Your task to perform on an android device: Search for "usb-c to usb-a" on target, select the first entry, and add it to the cart. Image 0: 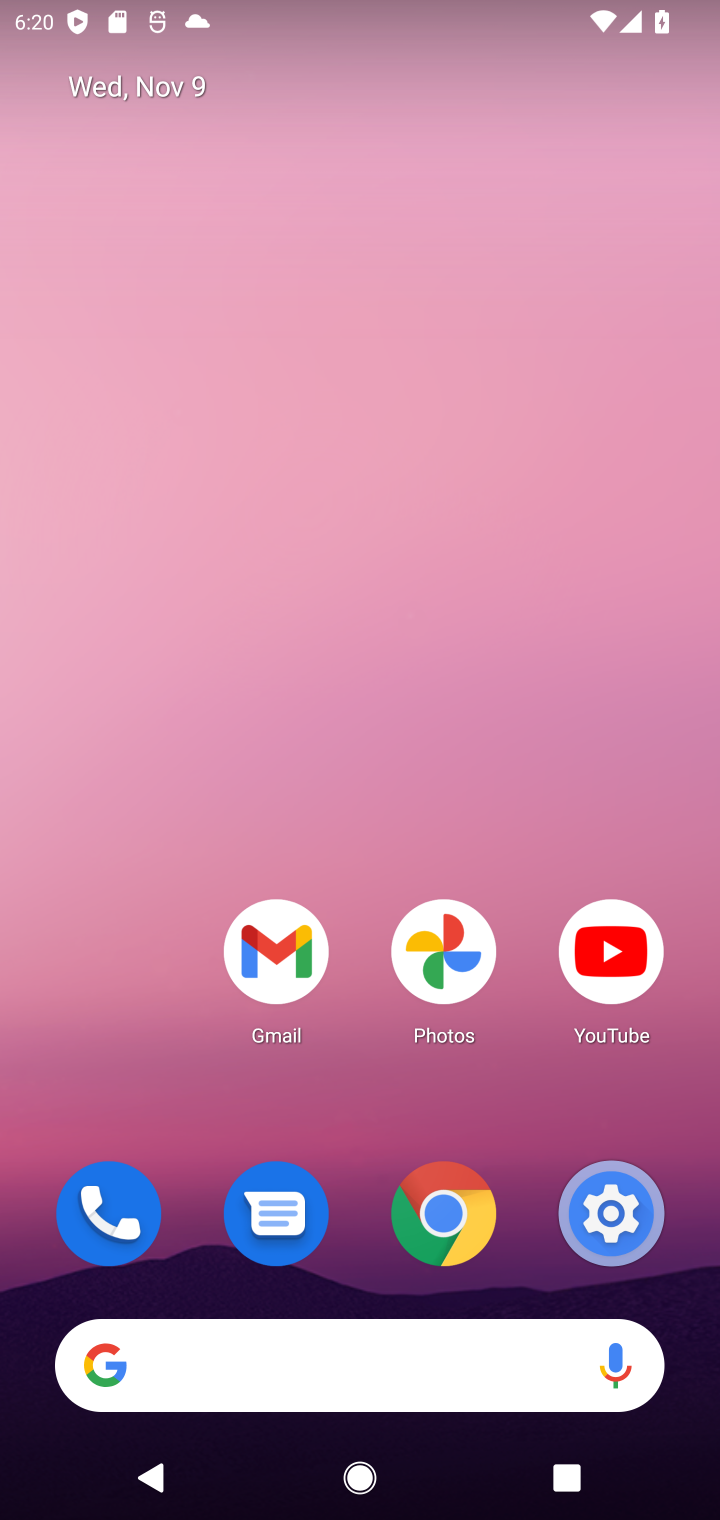
Step 0: click (436, 1198)
Your task to perform on an android device: Search for "usb-c to usb-a" on target, select the first entry, and add it to the cart. Image 1: 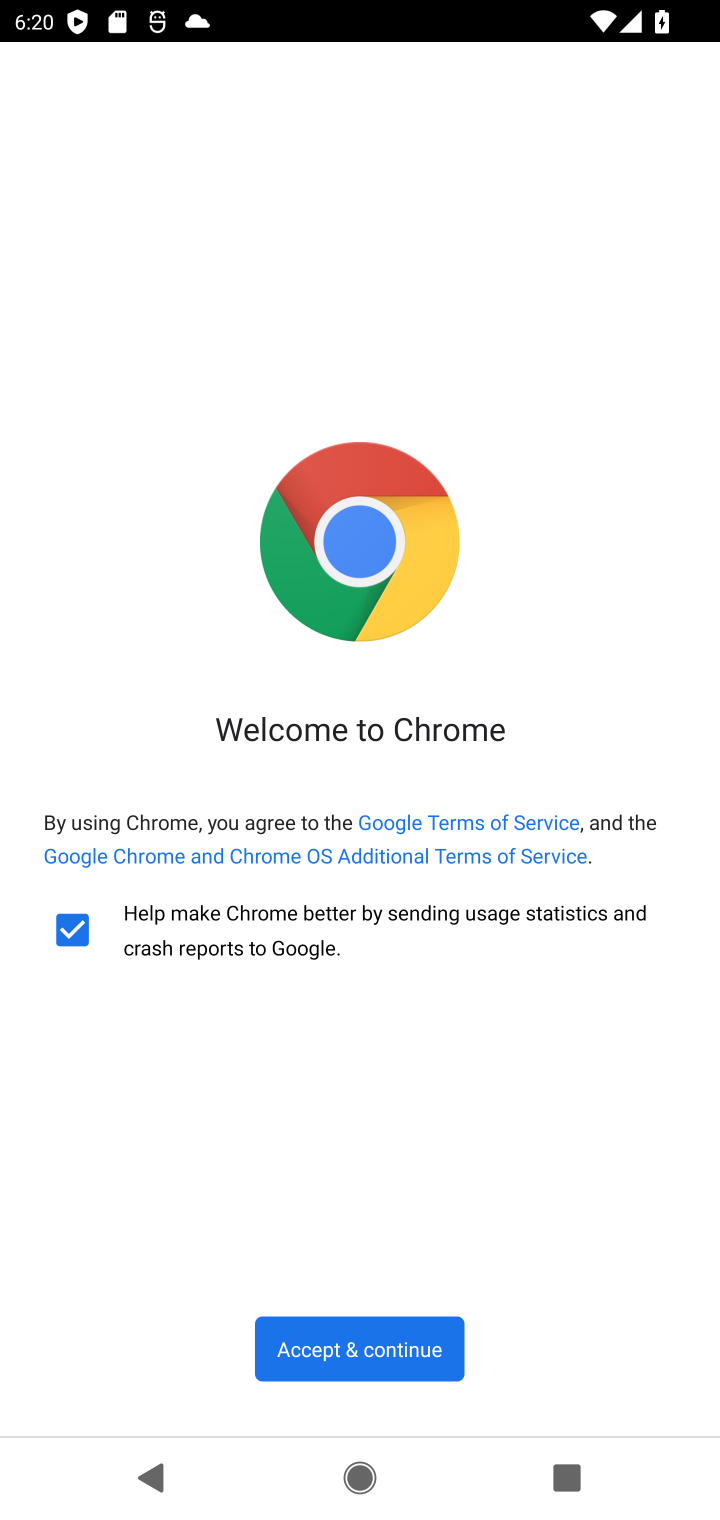
Step 1: click (339, 1351)
Your task to perform on an android device: Search for "usb-c to usb-a" on target, select the first entry, and add it to the cart. Image 2: 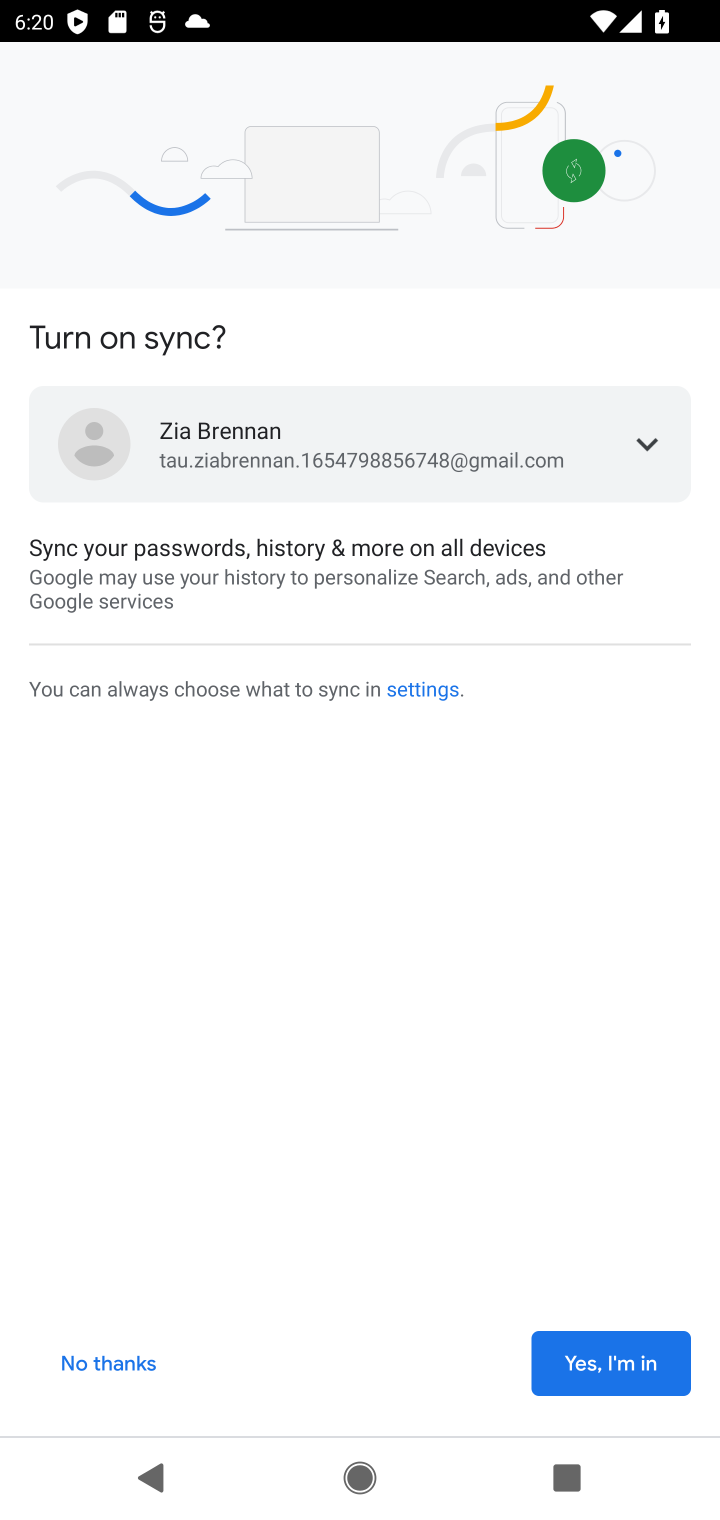
Step 2: click (644, 1365)
Your task to perform on an android device: Search for "usb-c to usb-a" on target, select the first entry, and add it to the cart. Image 3: 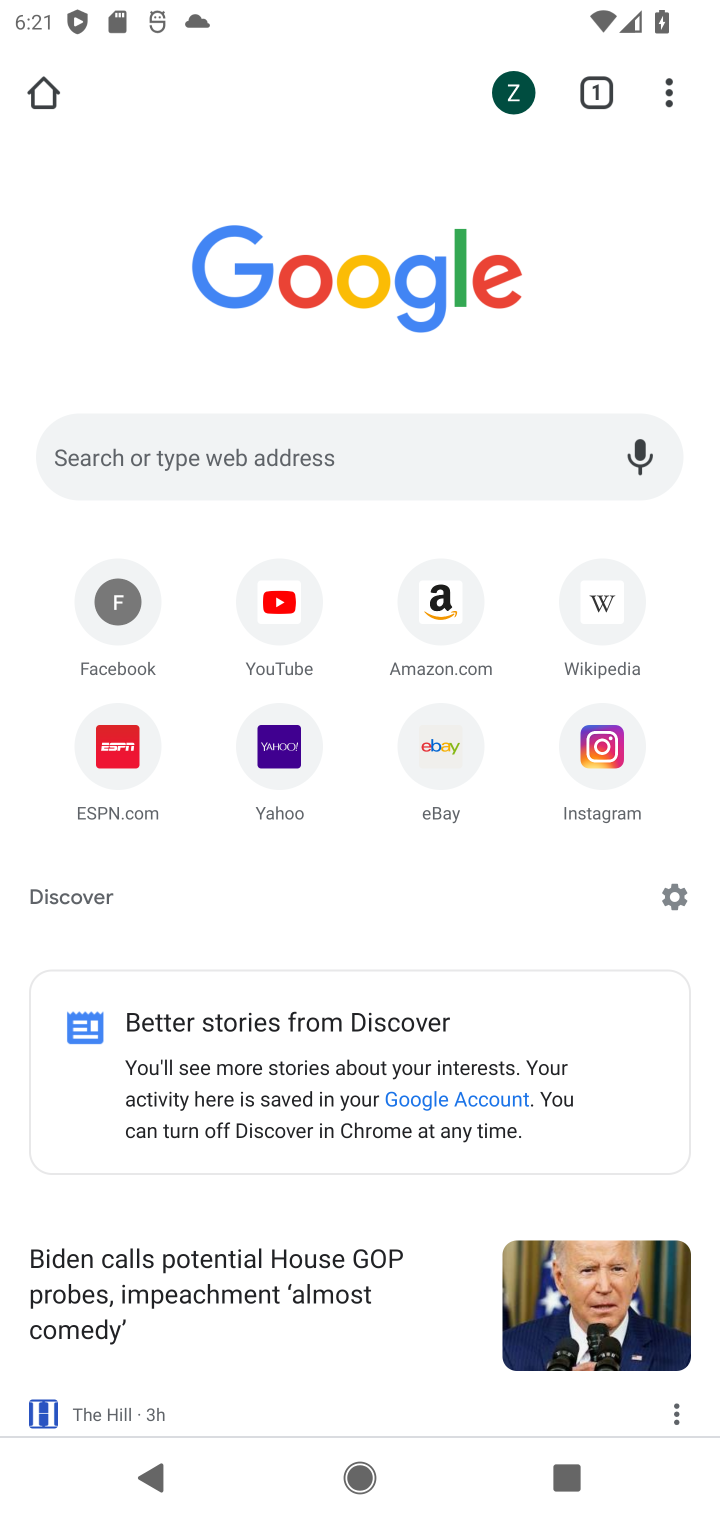
Step 3: click (312, 458)
Your task to perform on an android device: Search for "usb-c to usb-a" on target, select the first entry, and add it to the cart. Image 4: 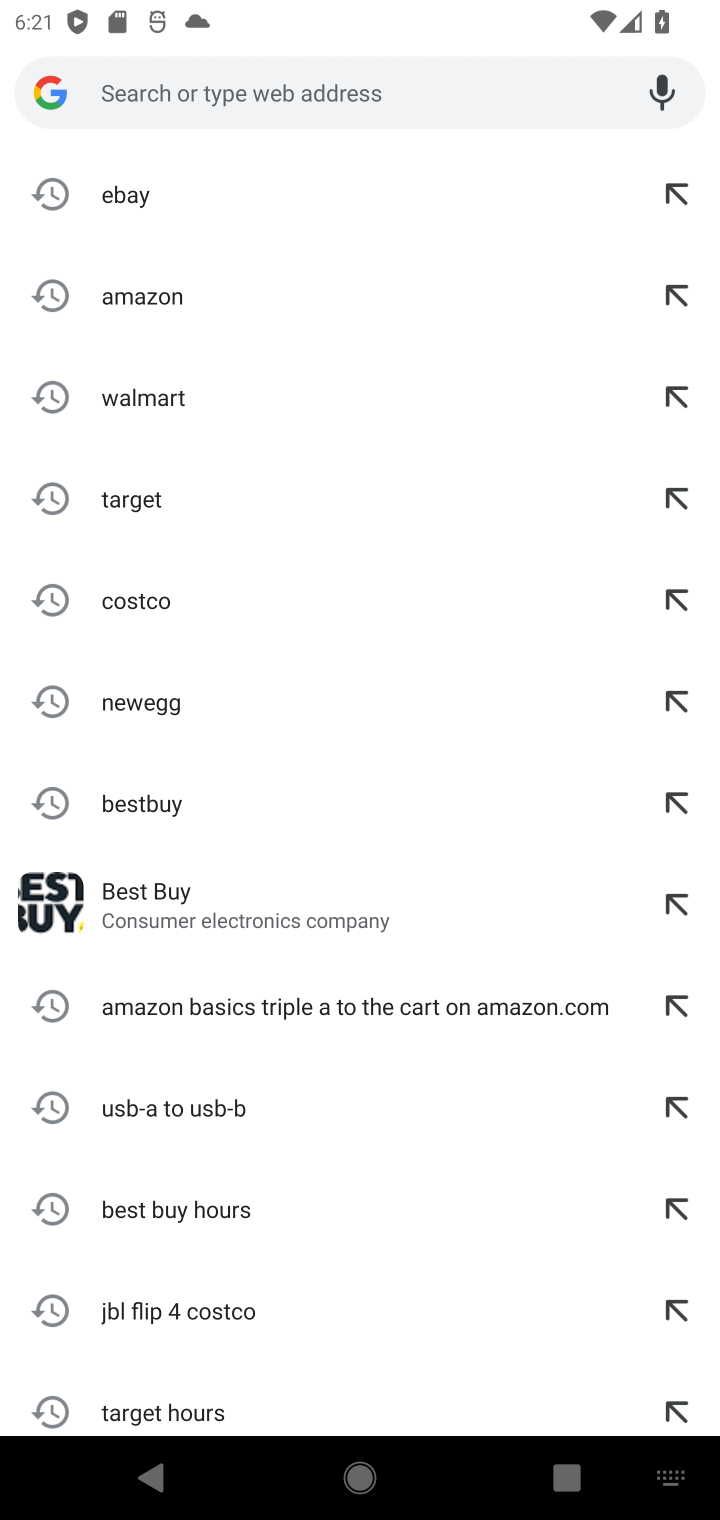
Step 4: type "target"
Your task to perform on an android device: Search for "usb-c to usb-a" on target, select the first entry, and add it to the cart. Image 5: 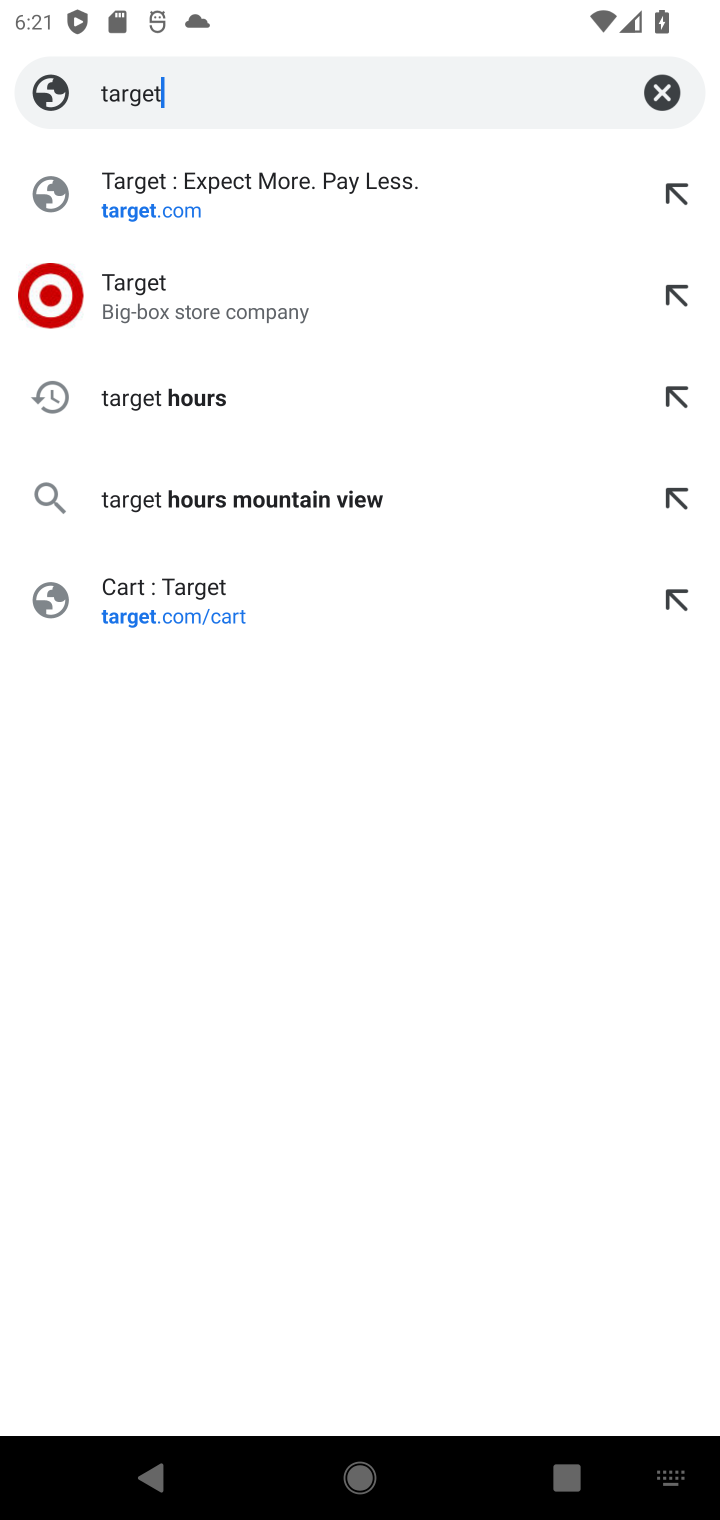
Step 5: click (133, 311)
Your task to perform on an android device: Search for "usb-c to usb-a" on target, select the first entry, and add it to the cart. Image 6: 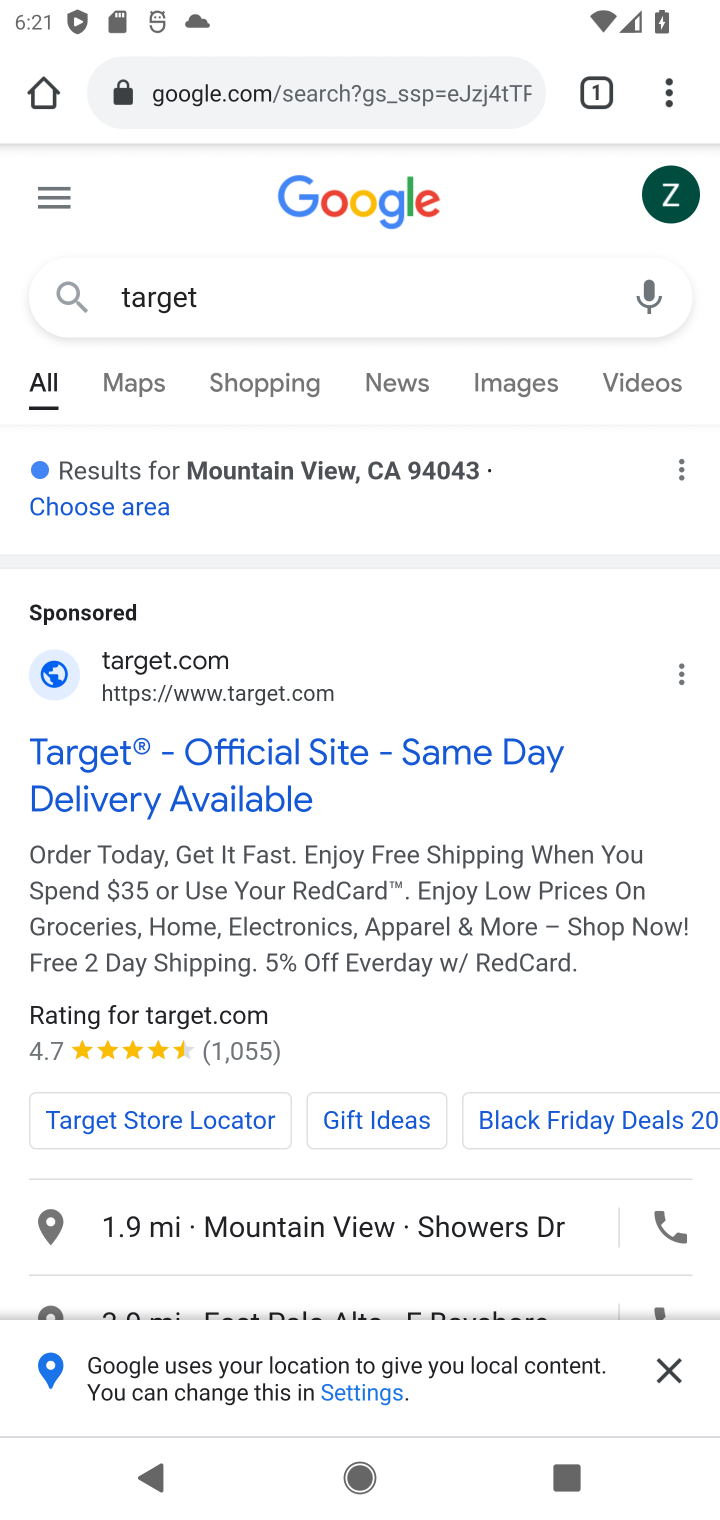
Step 6: drag from (434, 790) to (452, 249)
Your task to perform on an android device: Search for "usb-c to usb-a" on target, select the first entry, and add it to the cart. Image 7: 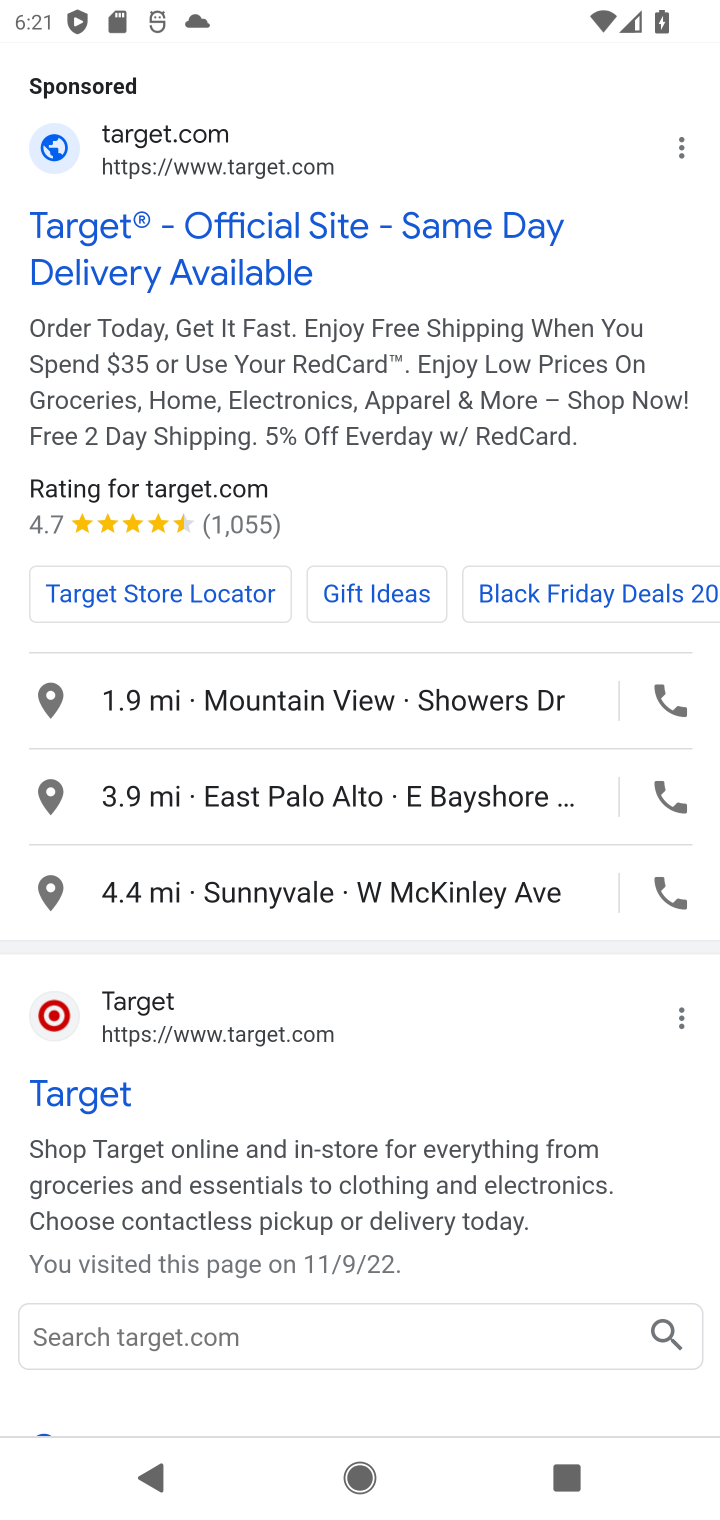
Step 7: click (39, 1086)
Your task to perform on an android device: Search for "usb-c to usb-a" on target, select the first entry, and add it to the cart. Image 8: 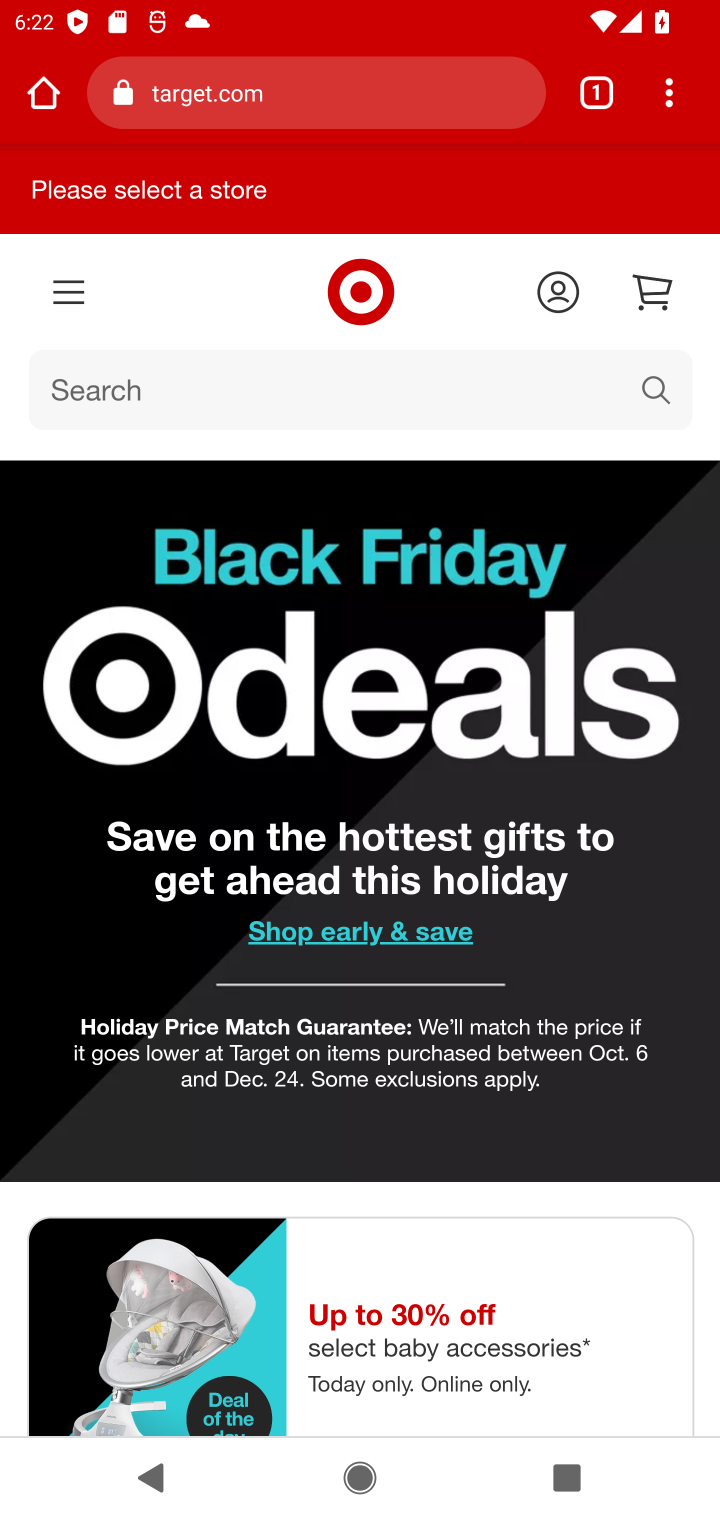
Step 8: click (183, 380)
Your task to perform on an android device: Search for "usb-c to usb-a" on target, select the first entry, and add it to the cart. Image 9: 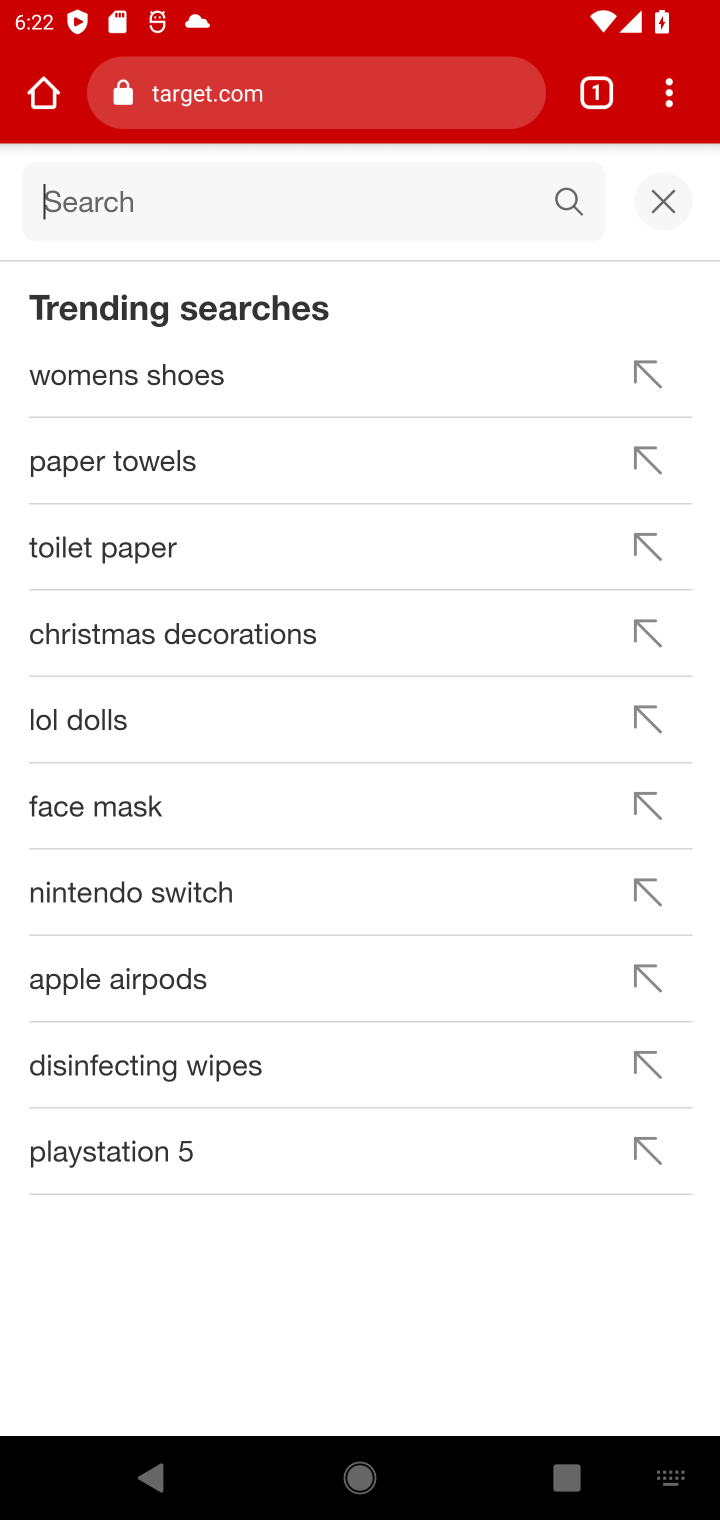
Step 9: type "usb c to usb a"
Your task to perform on an android device: Search for "usb-c to usb-a" on target, select the first entry, and add it to the cart. Image 10: 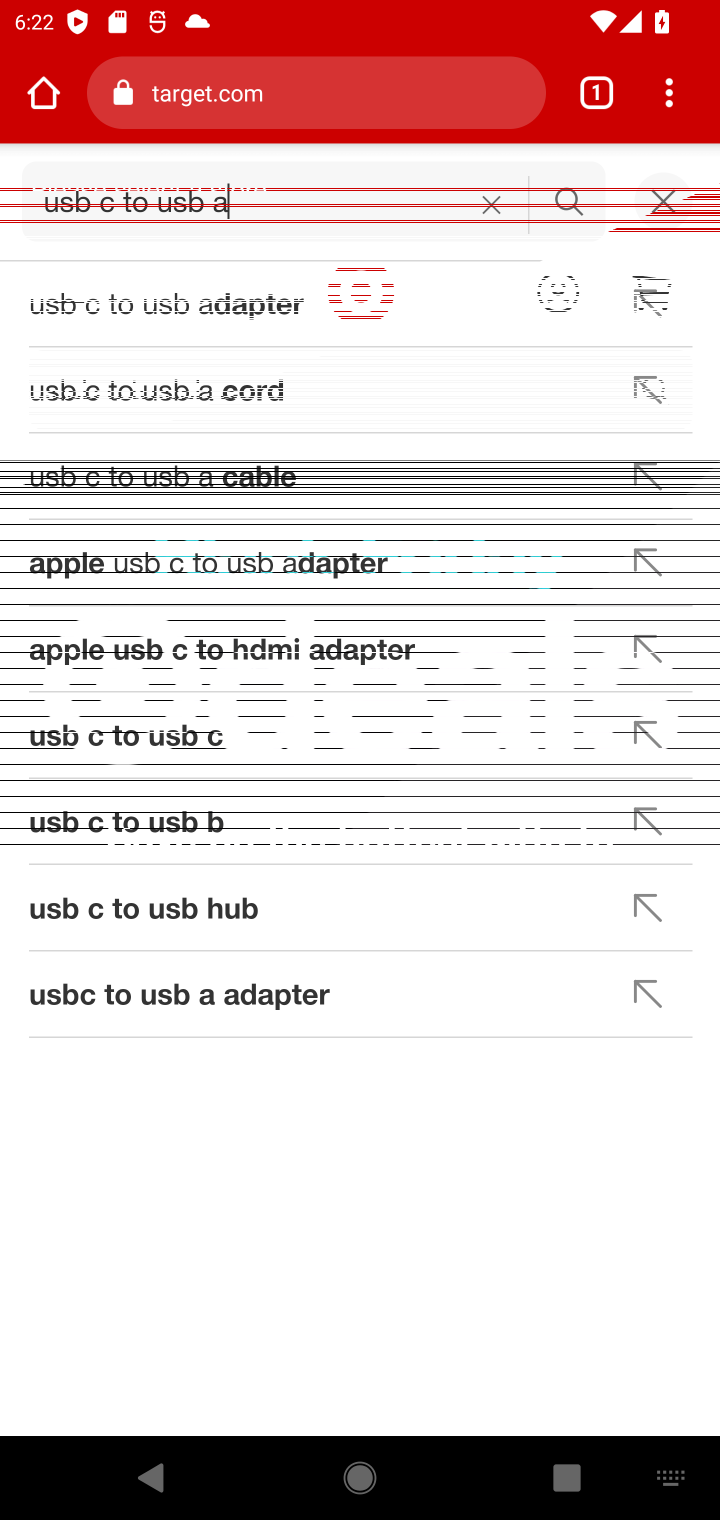
Step 10: click (67, 393)
Your task to perform on an android device: Search for "usb-c to usb-a" on target, select the first entry, and add it to the cart. Image 11: 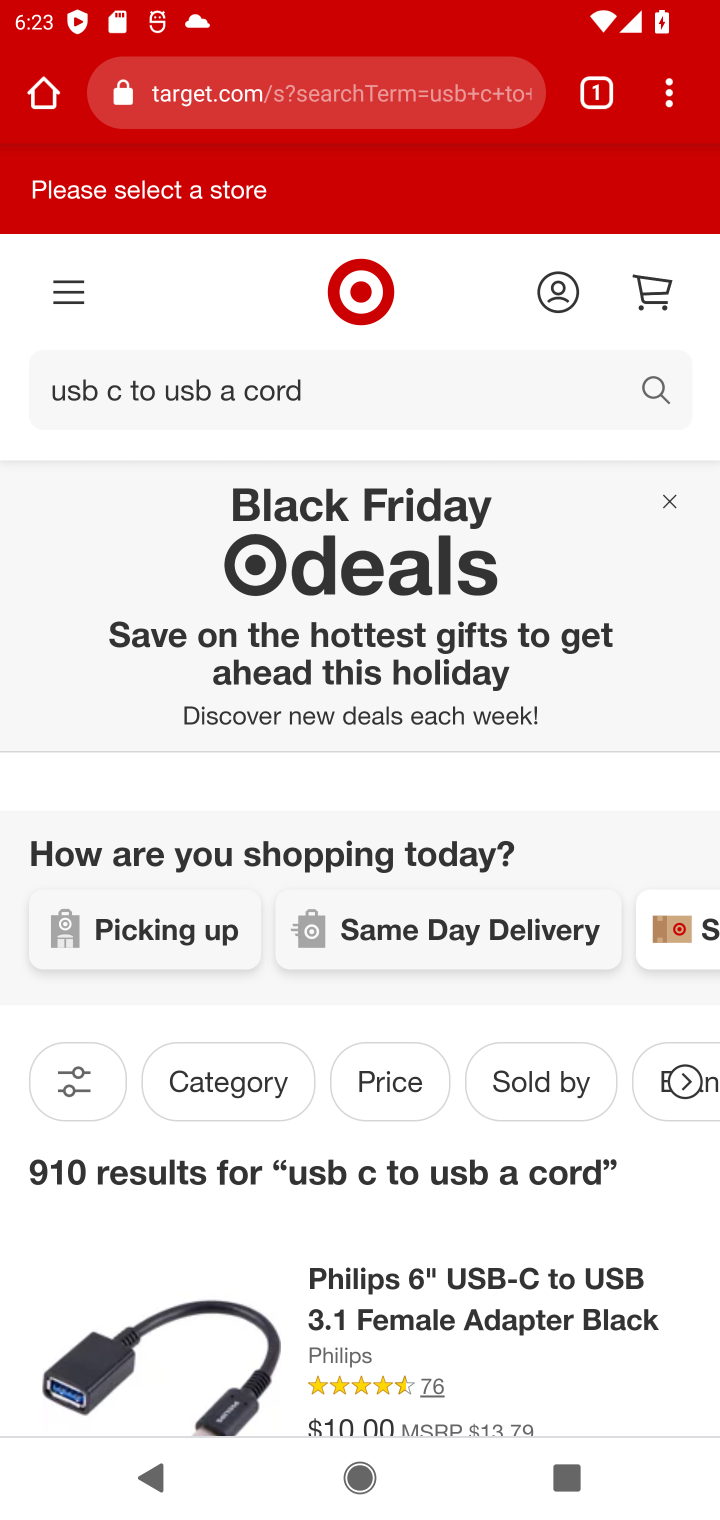
Step 11: drag from (434, 1174) to (391, 537)
Your task to perform on an android device: Search for "usb-c to usb-a" on target, select the first entry, and add it to the cart. Image 12: 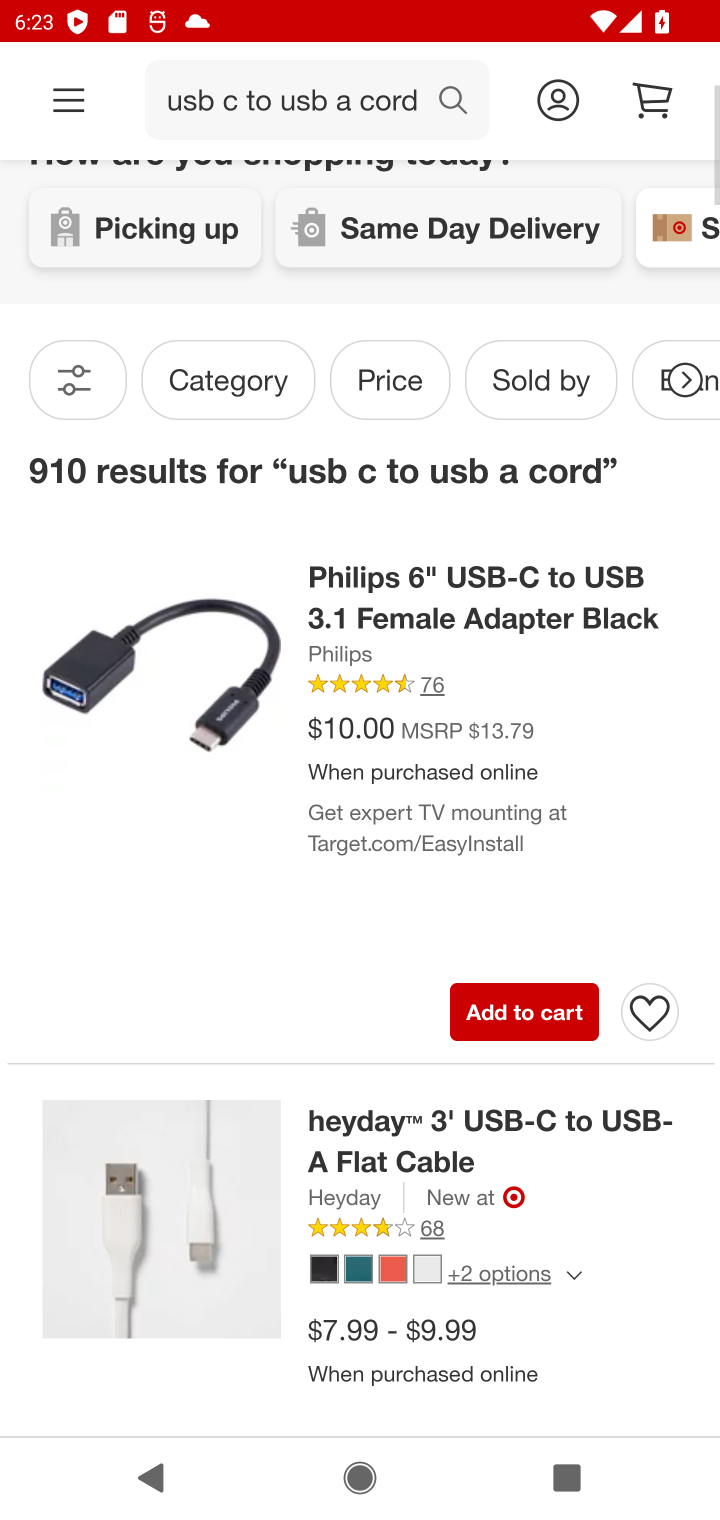
Step 12: click (354, 797)
Your task to perform on an android device: Search for "usb-c to usb-a" on target, select the first entry, and add it to the cart. Image 13: 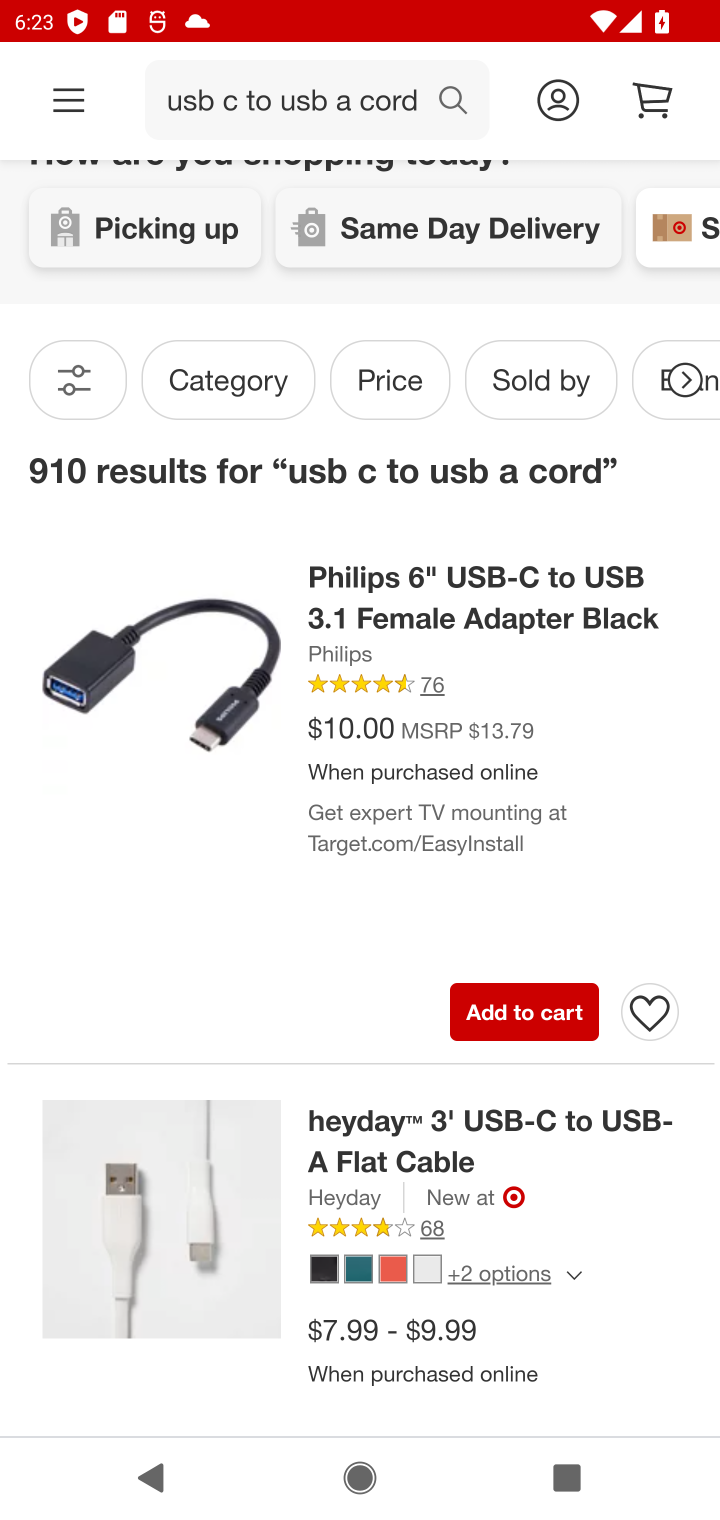
Step 13: click (442, 600)
Your task to perform on an android device: Search for "usb-c to usb-a" on target, select the first entry, and add it to the cart. Image 14: 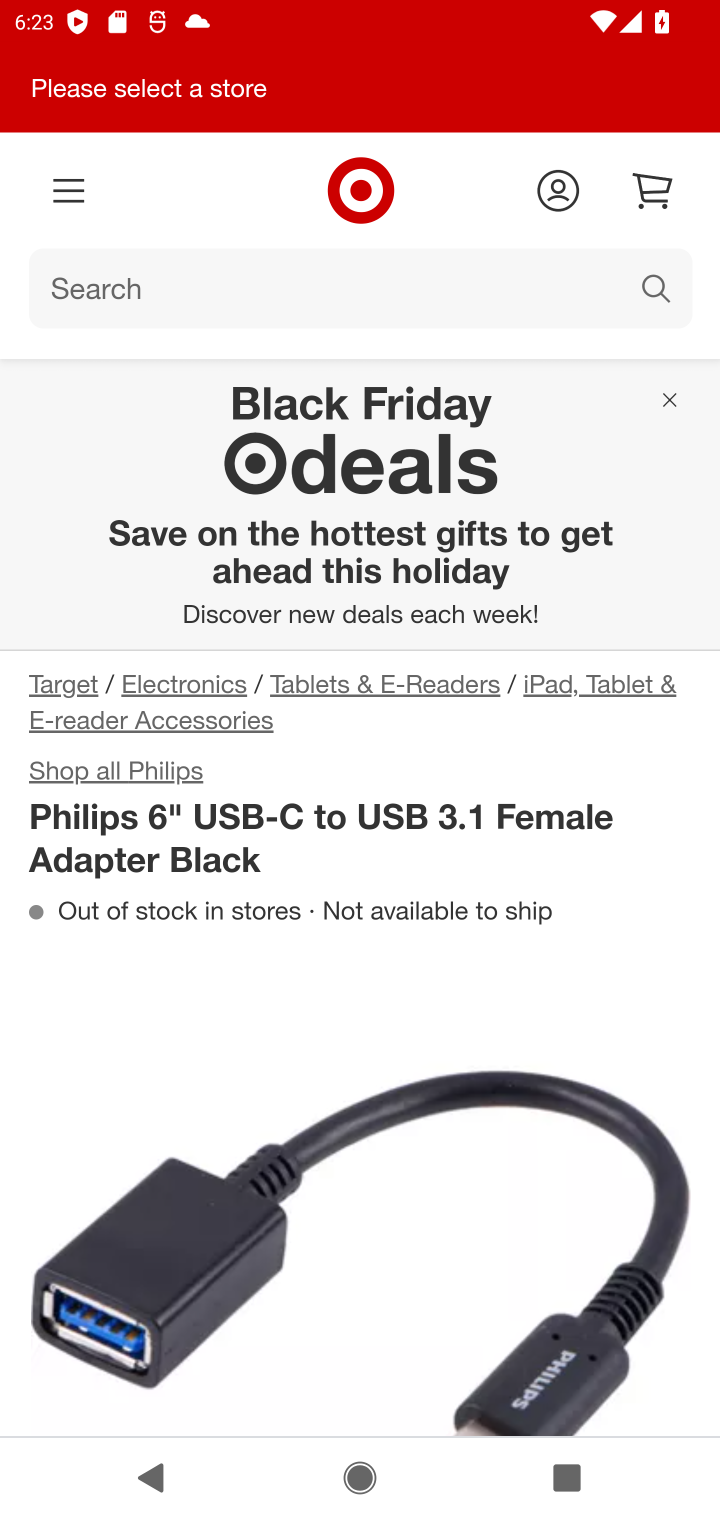
Step 14: drag from (386, 788) to (411, 425)
Your task to perform on an android device: Search for "usb-c to usb-a" on target, select the first entry, and add it to the cart. Image 15: 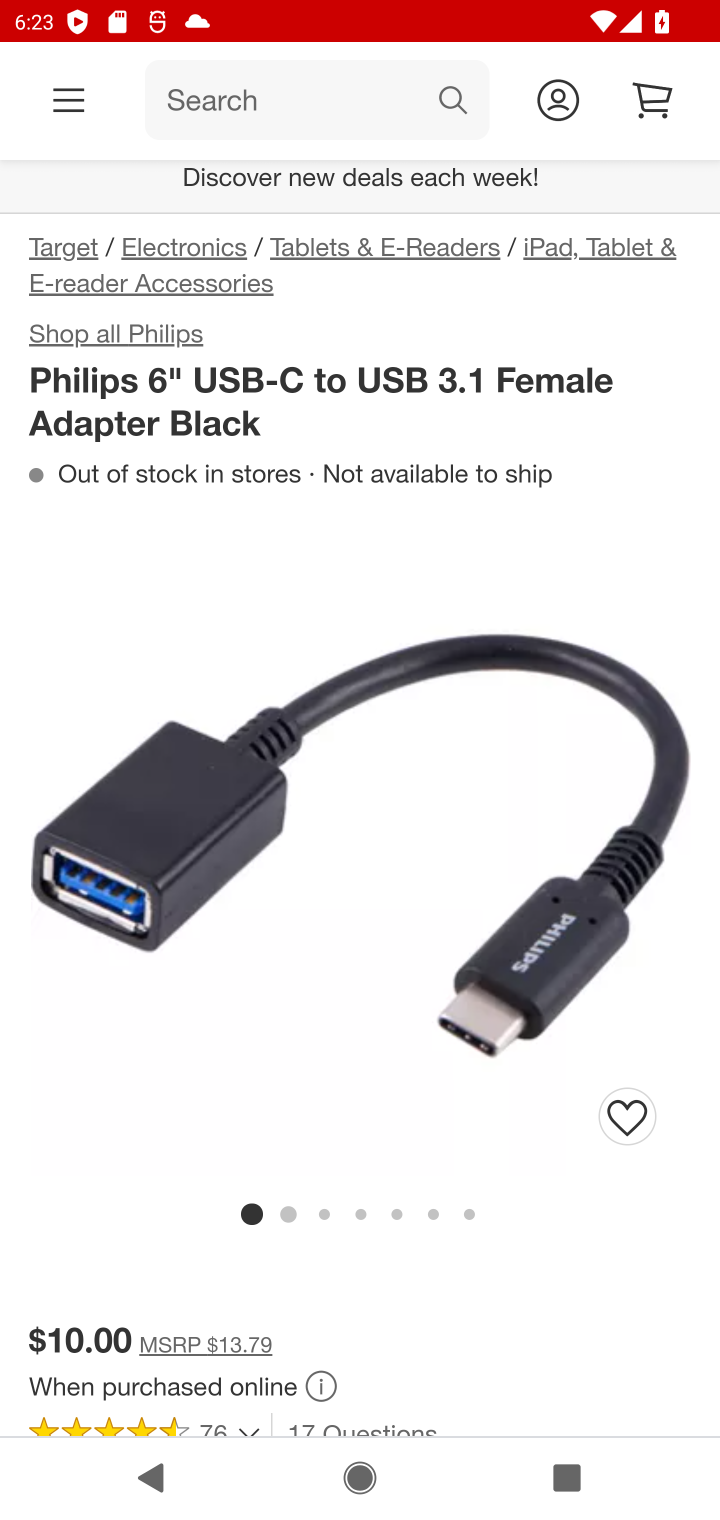
Step 15: drag from (328, 882) to (326, 292)
Your task to perform on an android device: Search for "usb-c to usb-a" on target, select the first entry, and add it to the cart. Image 16: 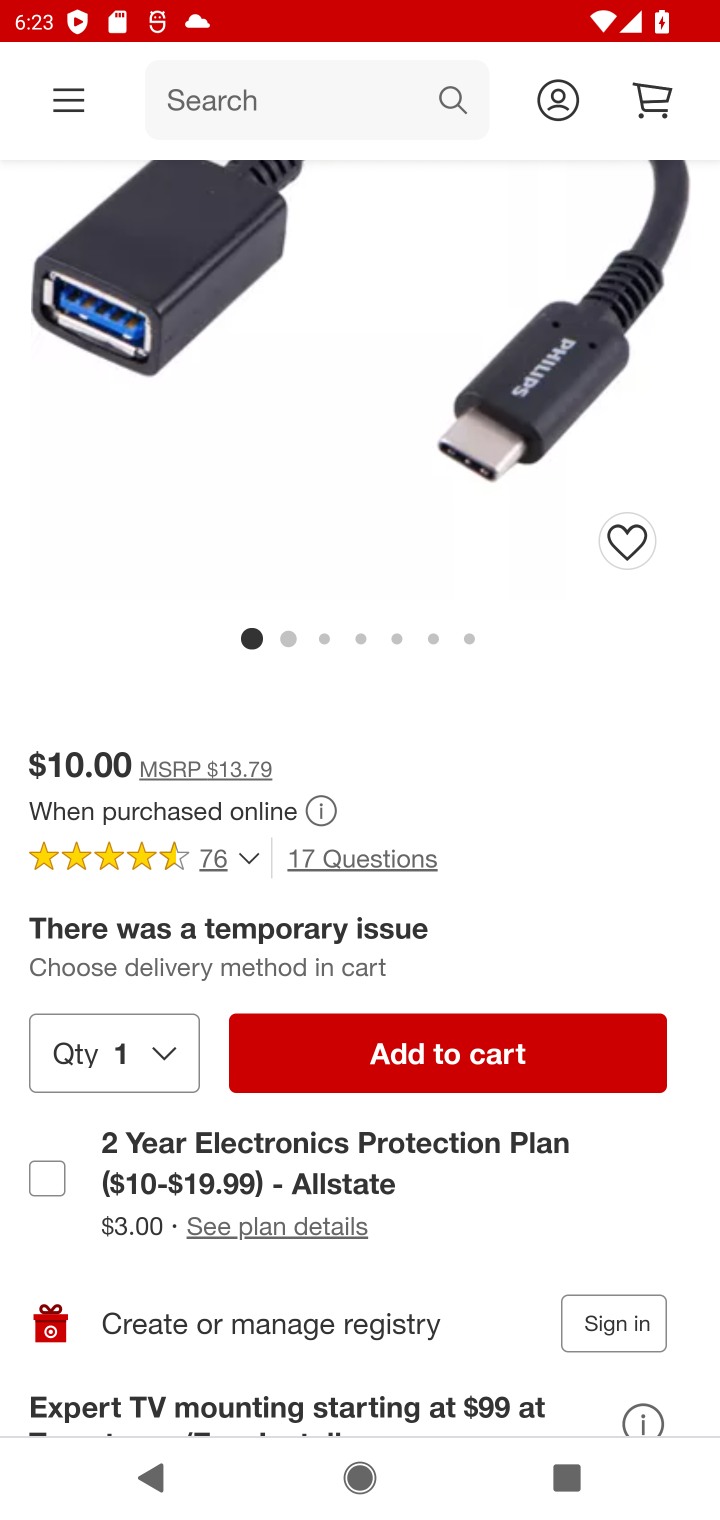
Step 16: drag from (395, 762) to (421, 400)
Your task to perform on an android device: Search for "usb-c to usb-a" on target, select the first entry, and add it to the cart. Image 17: 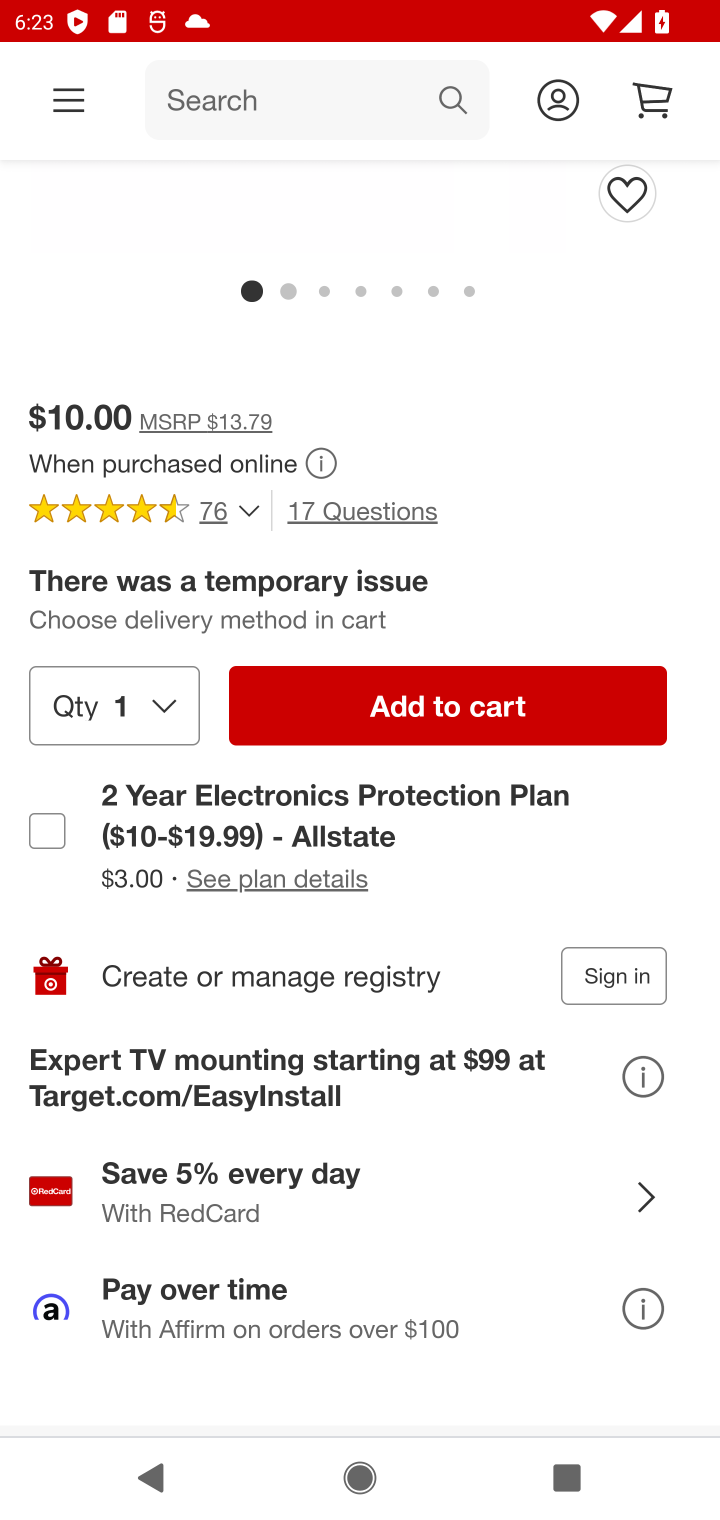
Step 17: click (482, 700)
Your task to perform on an android device: Search for "usb-c to usb-a" on target, select the first entry, and add it to the cart. Image 18: 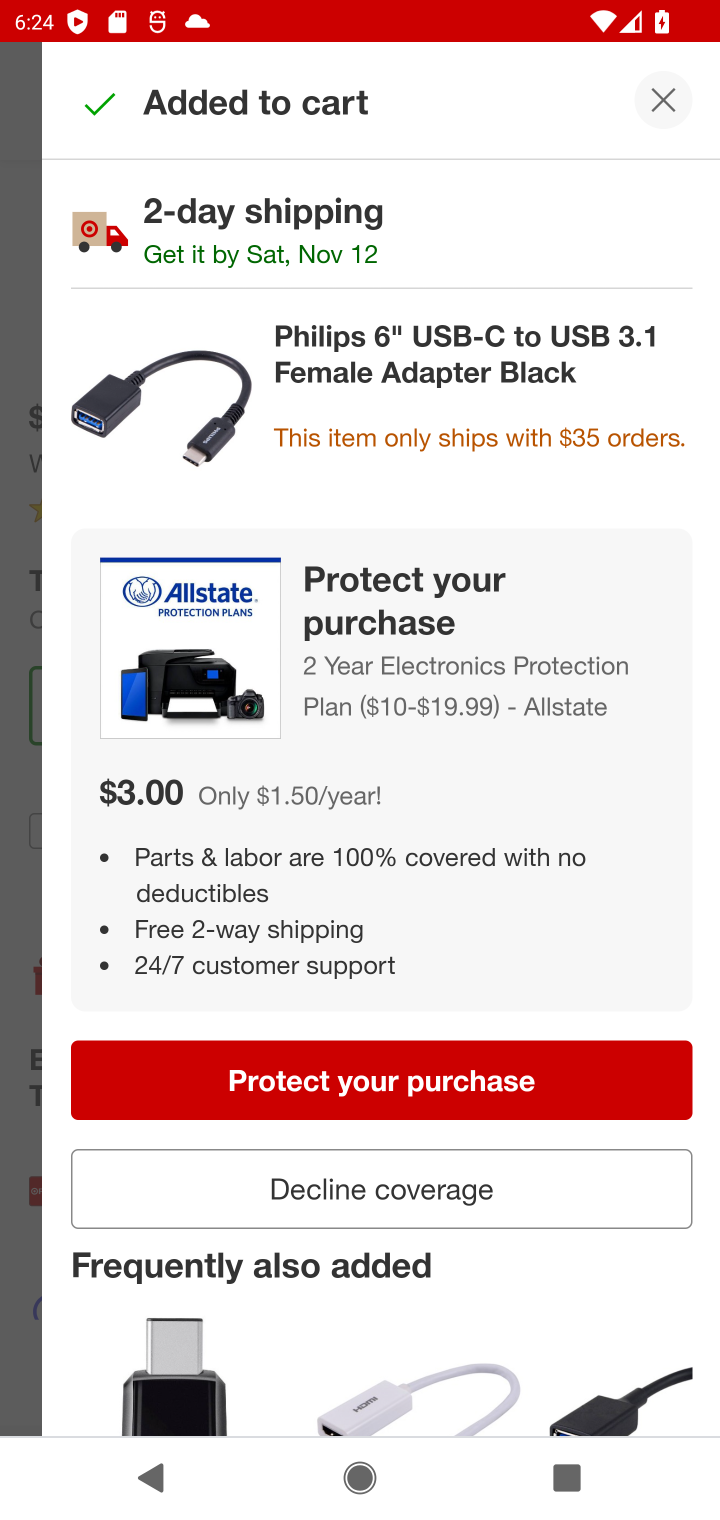
Step 18: click (292, 1097)
Your task to perform on an android device: Search for "usb-c to usb-a" on target, select the first entry, and add it to the cart. Image 19: 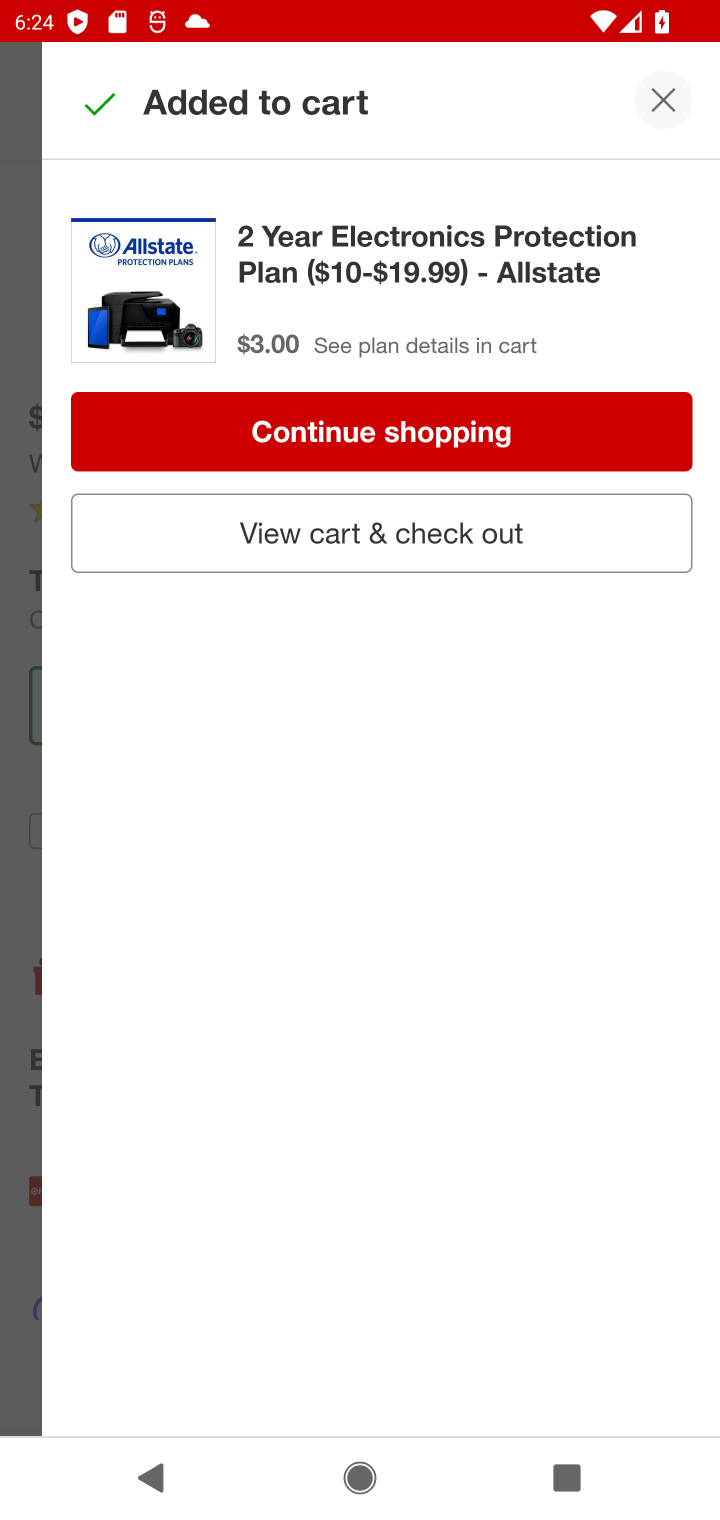
Step 19: click (339, 524)
Your task to perform on an android device: Search for "usb-c to usb-a" on target, select the first entry, and add it to the cart. Image 20: 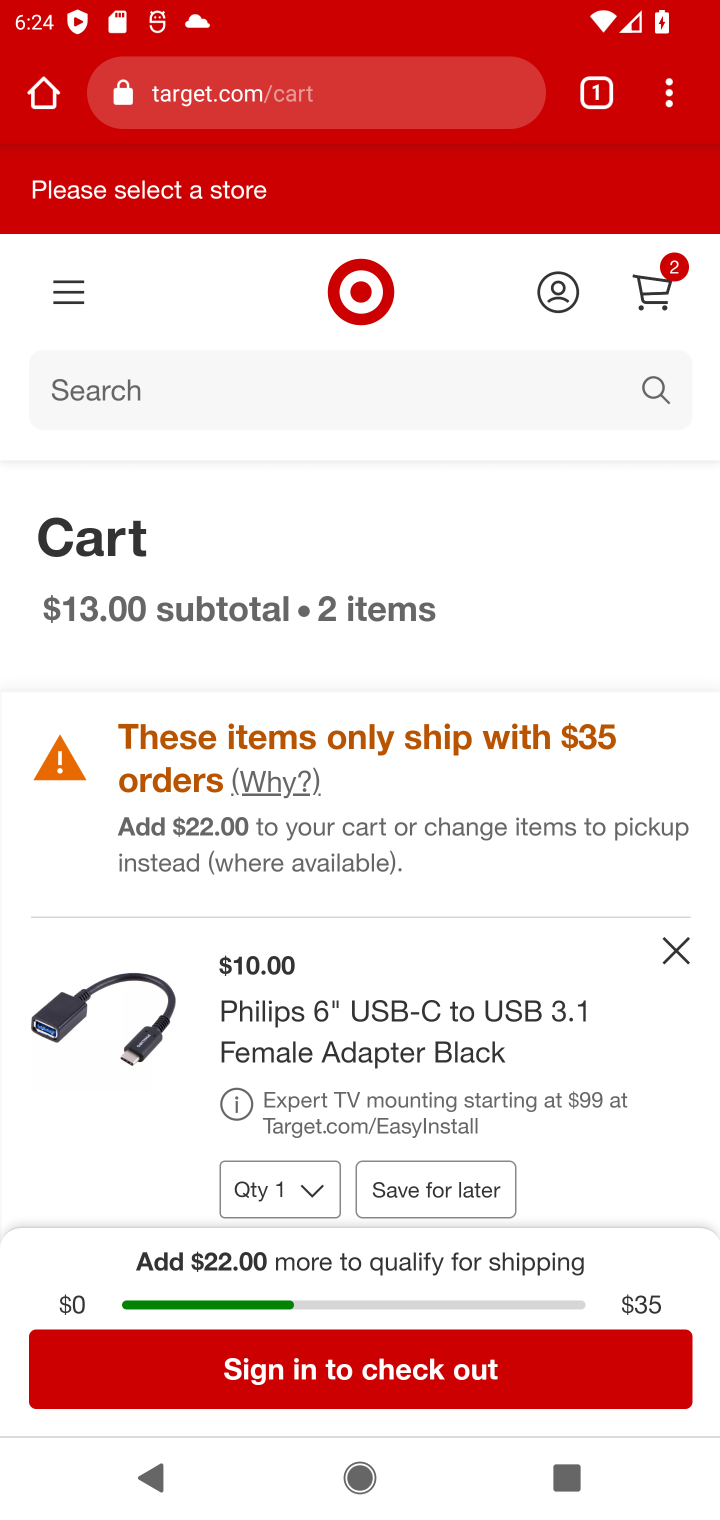
Step 20: task complete